Your task to perform on an android device: open chrome and create a bookmark for the current page Image 0: 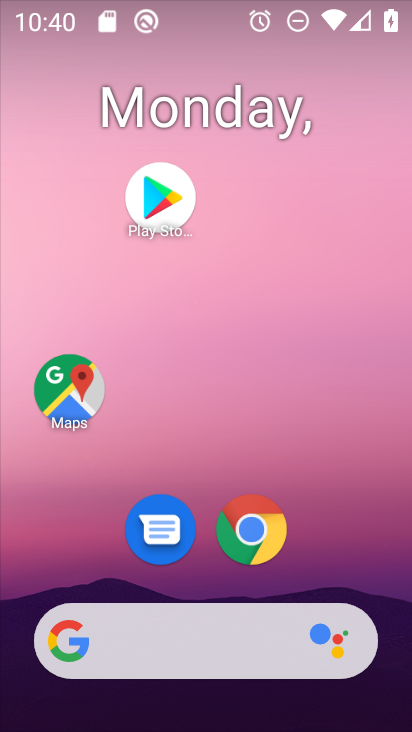
Step 0: click (253, 529)
Your task to perform on an android device: open chrome and create a bookmark for the current page Image 1: 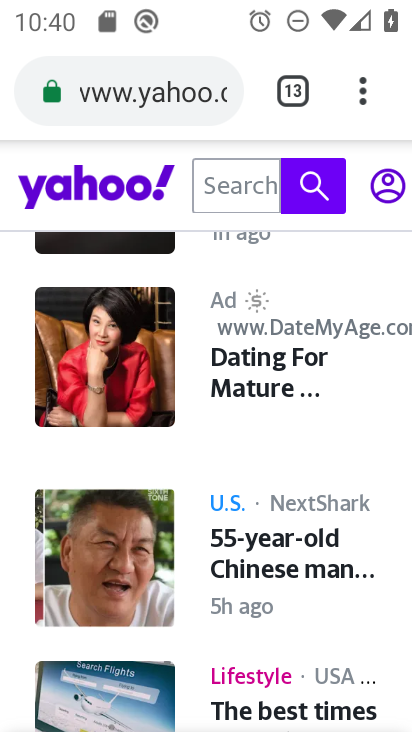
Step 1: click (364, 78)
Your task to perform on an android device: open chrome and create a bookmark for the current page Image 2: 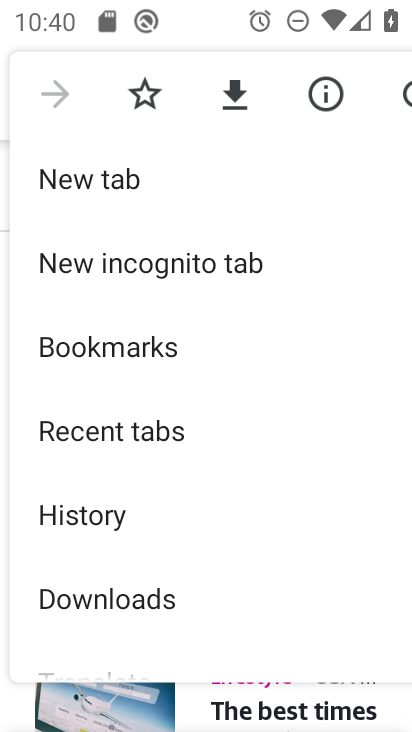
Step 2: click (146, 88)
Your task to perform on an android device: open chrome and create a bookmark for the current page Image 3: 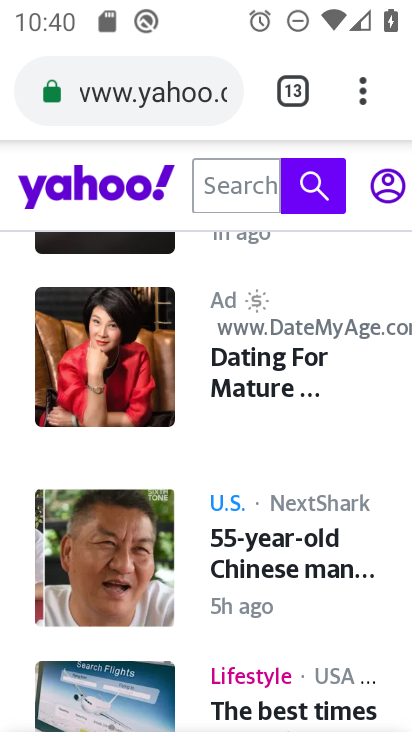
Step 3: task complete